Your task to perform on an android device: manage bookmarks in the chrome app Image 0: 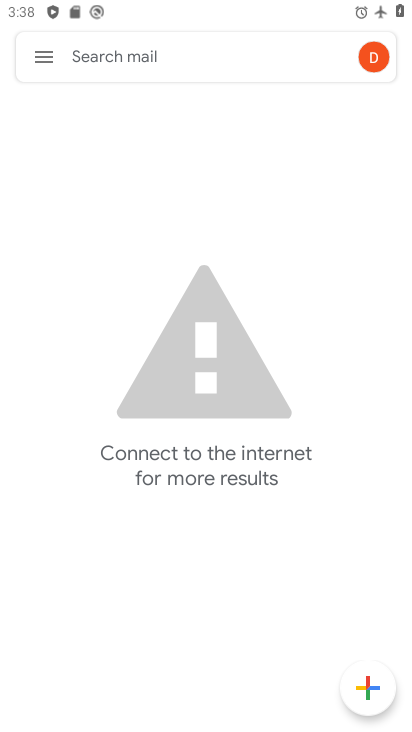
Step 0: press home button
Your task to perform on an android device: manage bookmarks in the chrome app Image 1: 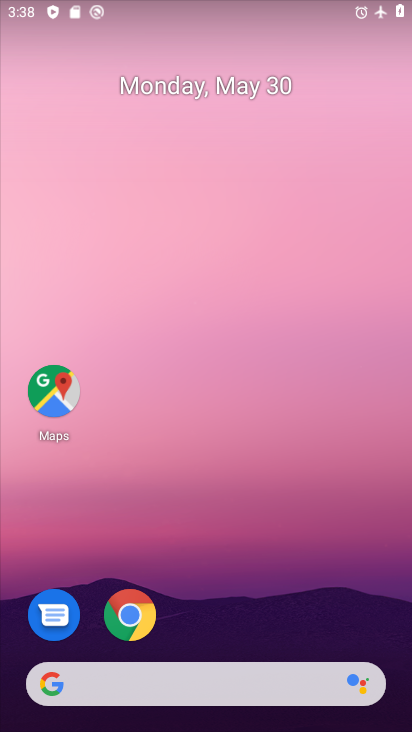
Step 1: click (129, 622)
Your task to perform on an android device: manage bookmarks in the chrome app Image 2: 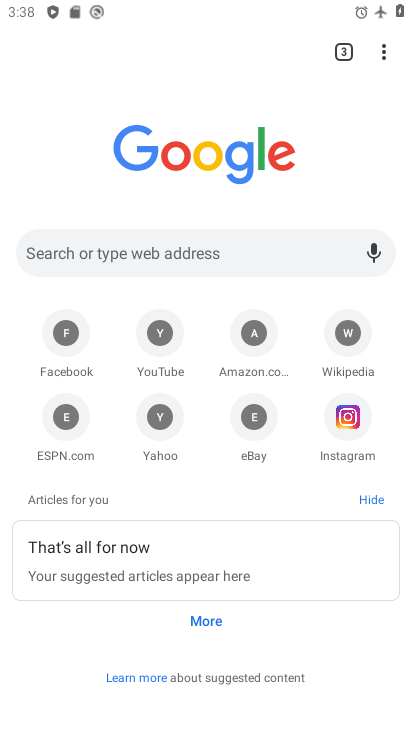
Step 2: click (381, 58)
Your task to perform on an android device: manage bookmarks in the chrome app Image 3: 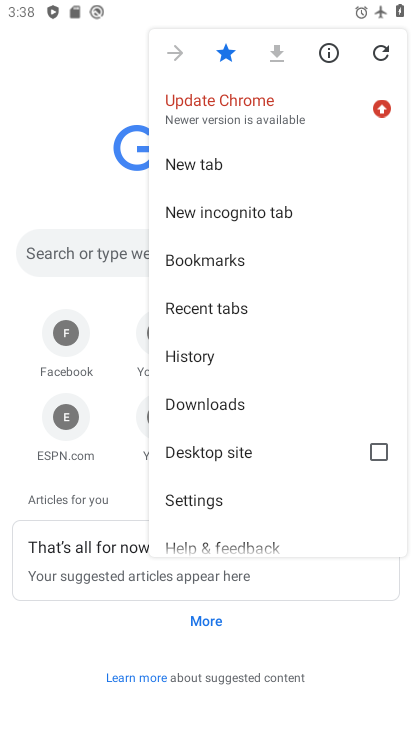
Step 3: click (239, 263)
Your task to perform on an android device: manage bookmarks in the chrome app Image 4: 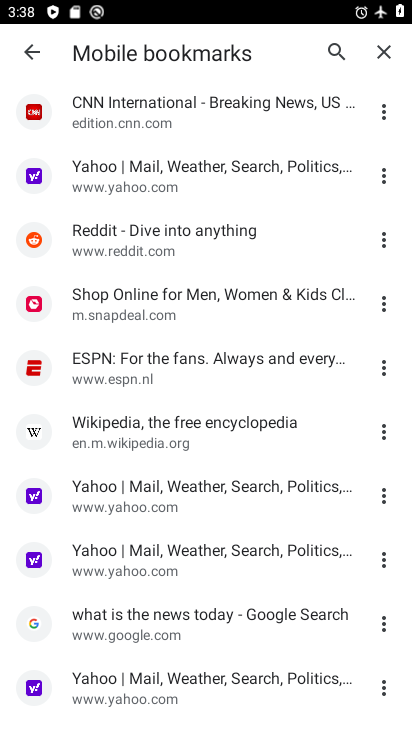
Step 4: click (375, 176)
Your task to perform on an android device: manage bookmarks in the chrome app Image 5: 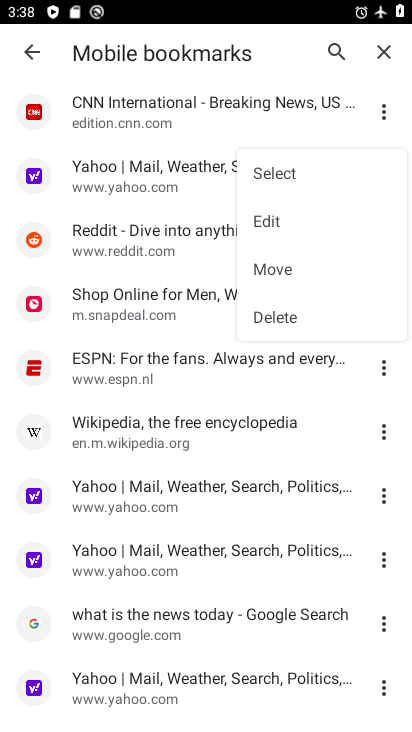
Step 5: click (328, 222)
Your task to perform on an android device: manage bookmarks in the chrome app Image 6: 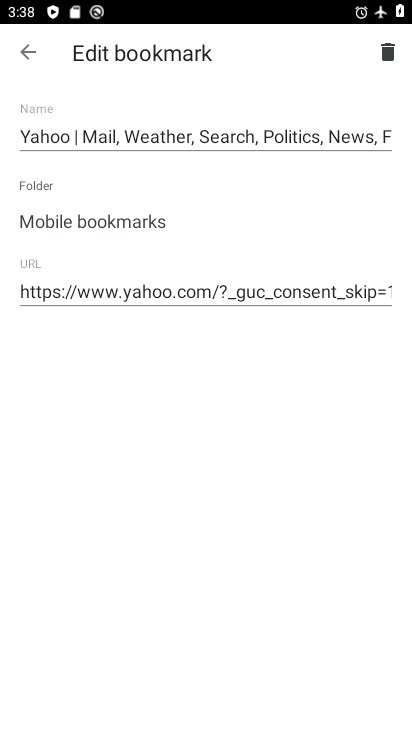
Step 6: click (28, 42)
Your task to perform on an android device: manage bookmarks in the chrome app Image 7: 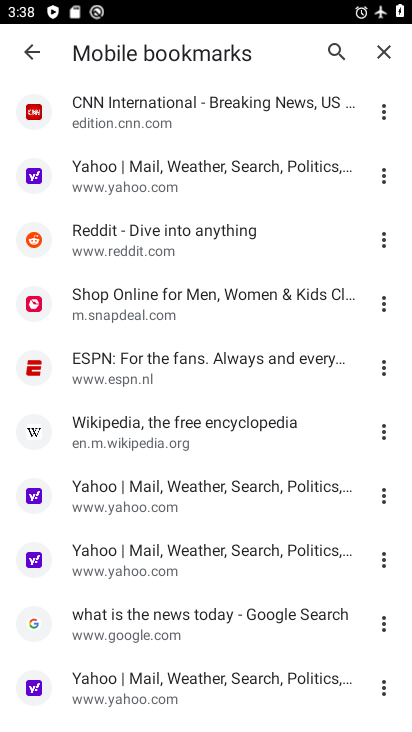
Step 7: task complete